Your task to perform on an android device: change text size in settings app Image 0: 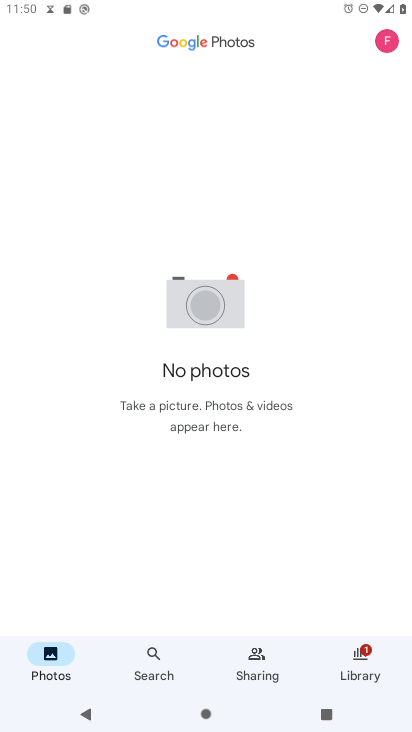
Step 0: press home button
Your task to perform on an android device: change text size in settings app Image 1: 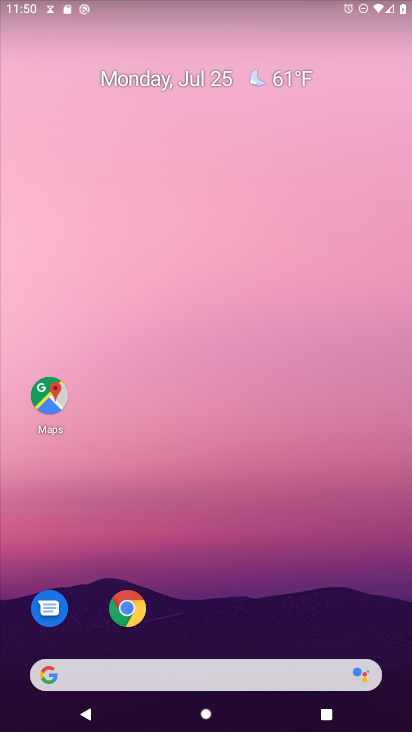
Step 1: drag from (181, 680) to (394, 104)
Your task to perform on an android device: change text size in settings app Image 2: 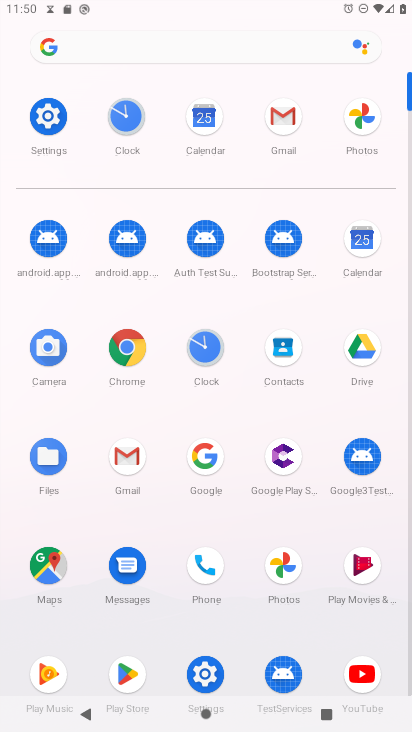
Step 2: click (203, 673)
Your task to perform on an android device: change text size in settings app Image 3: 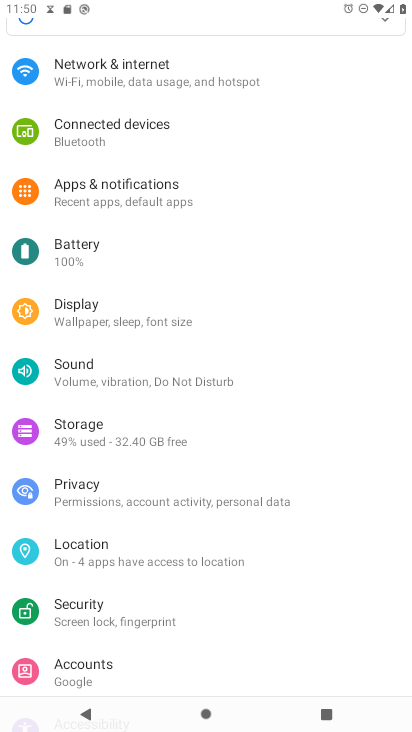
Step 3: drag from (153, 654) to (209, 440)
Your task to perform on an android device: change text size in settings app Image 4: 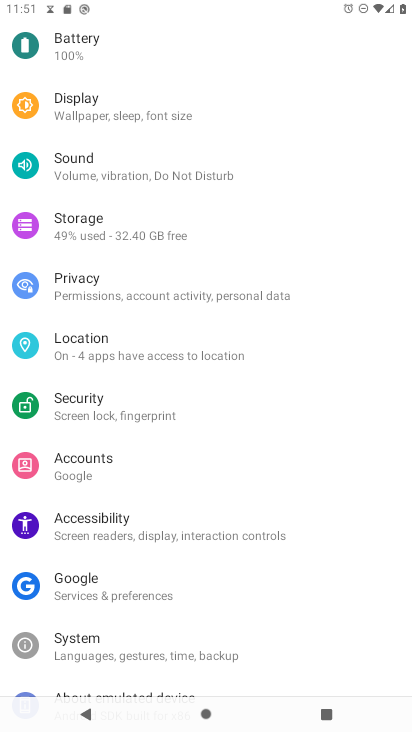
Step 4: click (169, 538)
Your task to perform on an android device: change text size in settings app Image 5: 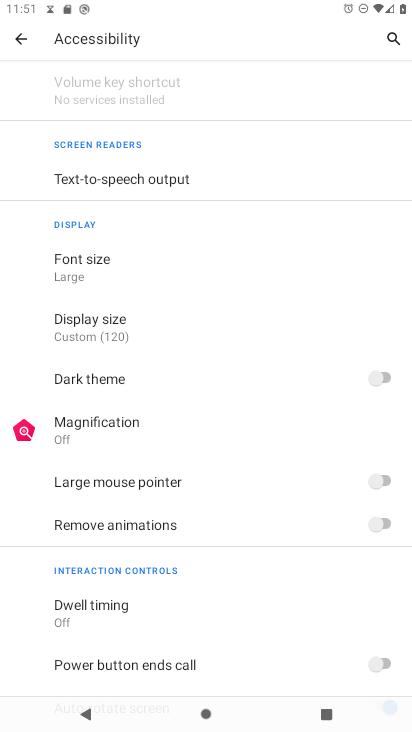
Step 5: click (102, 266)
Your task to perform on an android device: change text size in settings app Image 6: 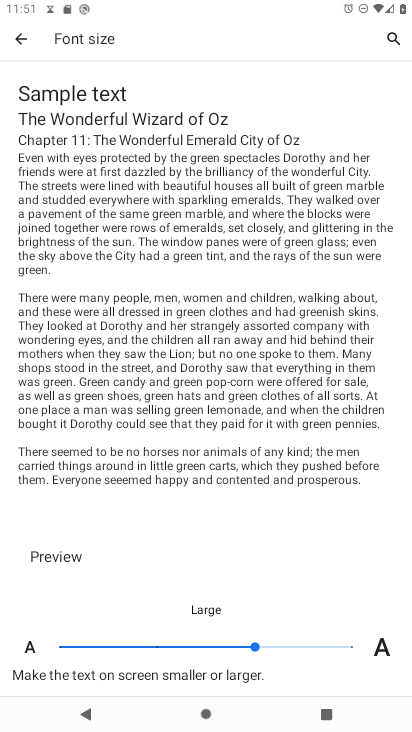
Step 6: click (351, 645)
Your task to perform on an android device: change text size in settings app Image 7: 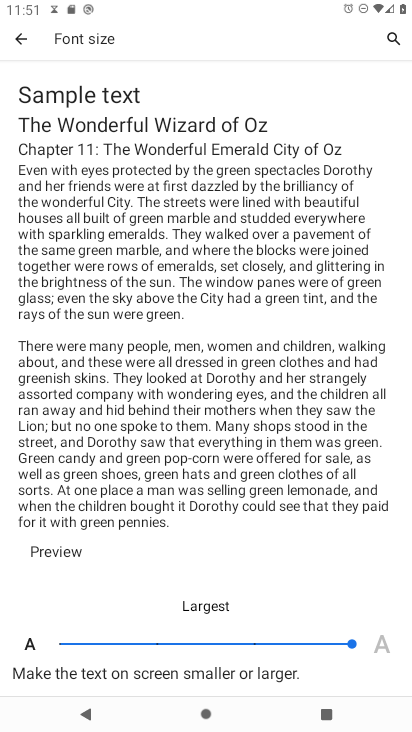
Step 7: task complete